Your task to perform on an android device: choose inbox layout in the gmail app Image 0: 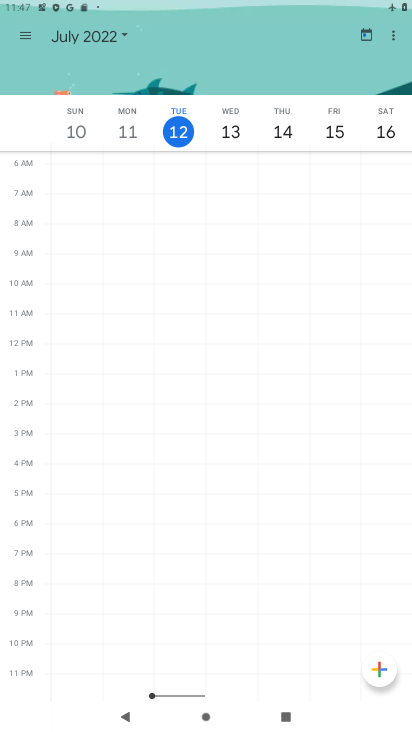
Step 0: press home button
Your task to perform on an android device: choose inbox layout in the gmail app Image 1: 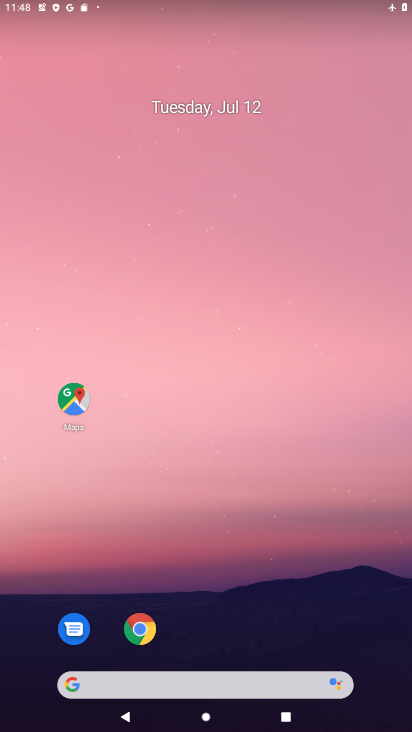
Step 1: drag from (176, 631) to (202, 321)
Your task to perform on an android device: choose inbox layout in the gmail app Image 2: 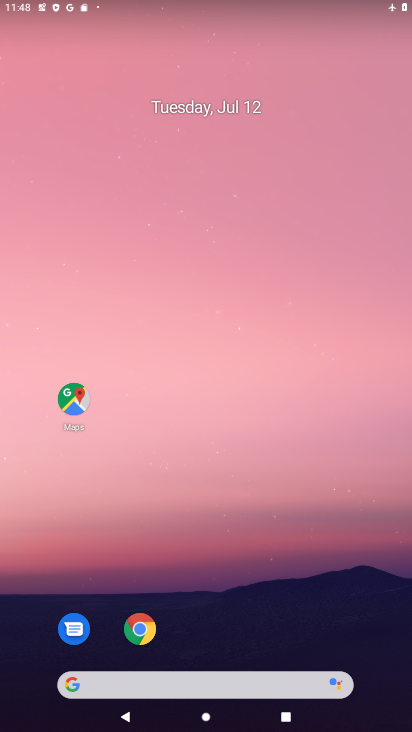
Step 2: drag from (223, 601) to (249, 302)
Your task to perform on an android device: choose inbox layout in the gmail app Image 3: 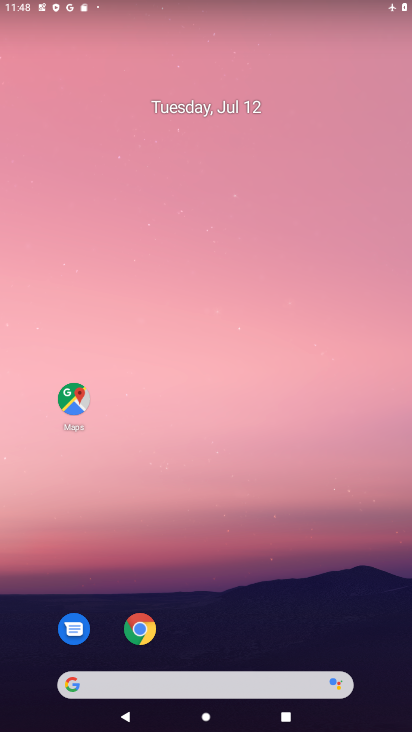
Step 3: drag from (184, 610) to (272, 123)
Your task to perform on an android device: choose inbox layout in the gmail app Image 4: 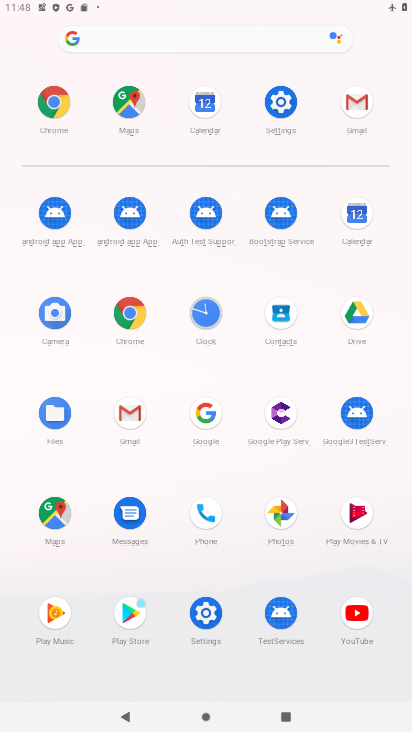
Step 4: click (351, 93)
Your task to perform on an android device: choose inbox layout in the gmail app Image 5: 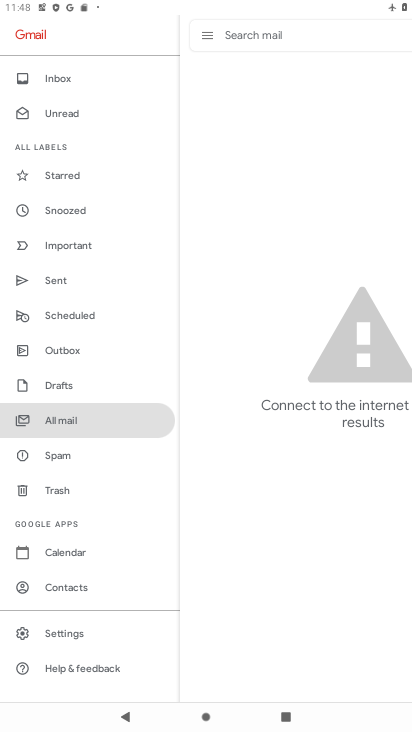
Step 5: click (84, 631)
Your task to perform on an android device: choose inbox layout in the gmail app Image 6: 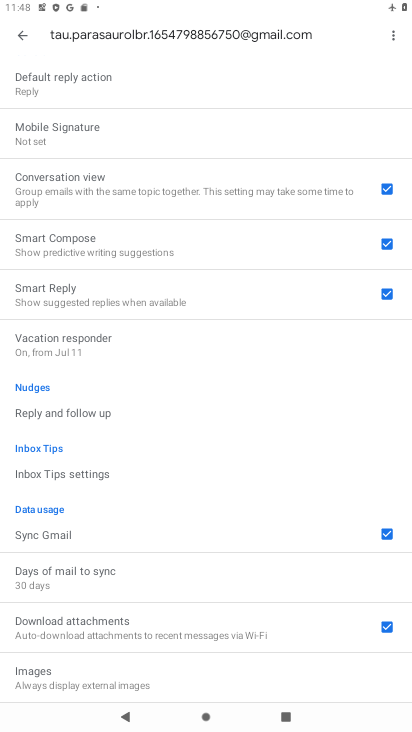
Step 6: click (11, 37)
Your task to perform on an android device: choose inbox layout in the gmail app Image 7: 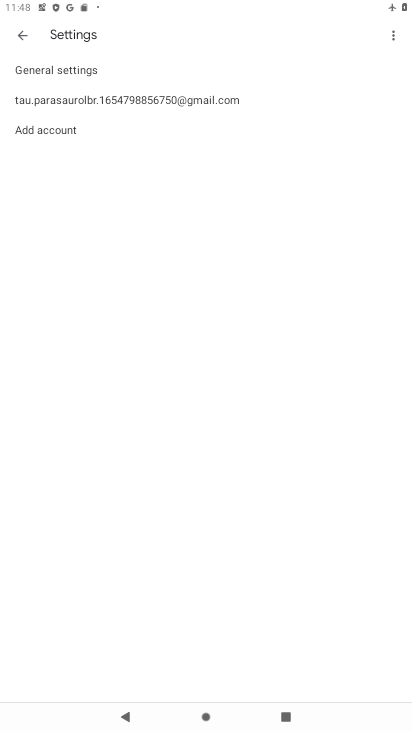
Step 7: click (111, 97)
Your task to perform on an android device: choose inbox layout in the gmail app Image 8: 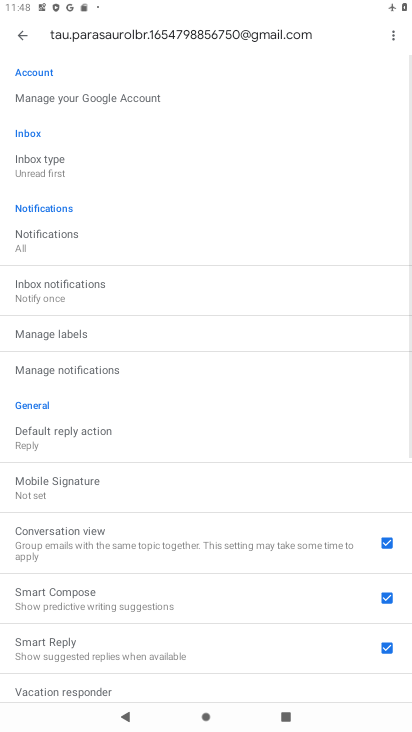
Step 8: click (58, 183)
Your task to perform on an android device: choose inbox layout in the gmail app Image 9: 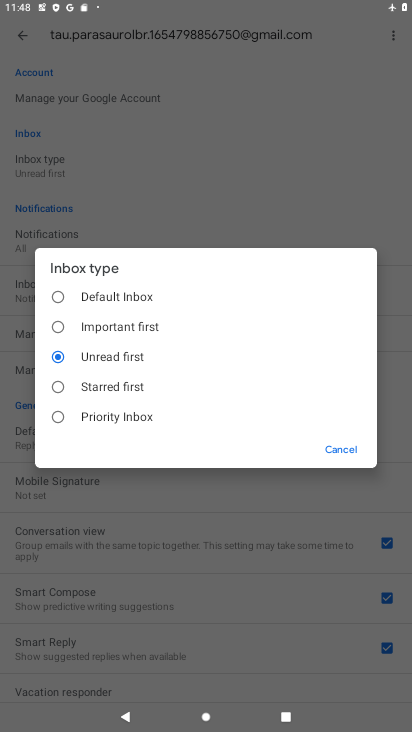
Step 9: click (76, 389)
Your task to perform on an android device: choose inbox layout in the gmail app Image 10: 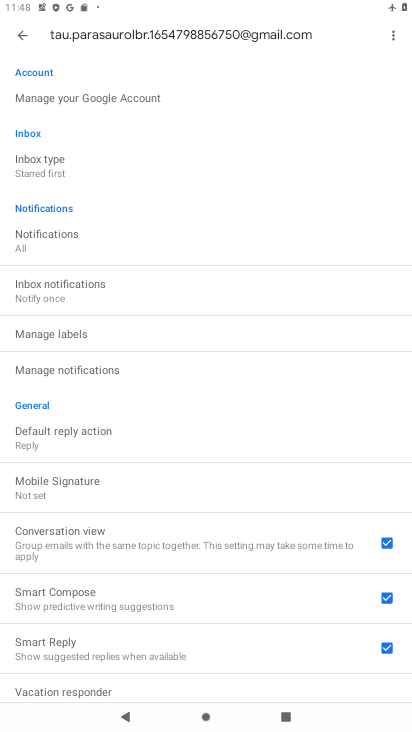
Step 10: task complete